Your task to perform on an android device: Open the Play Movies app and select the watchlist tab. Image 0: 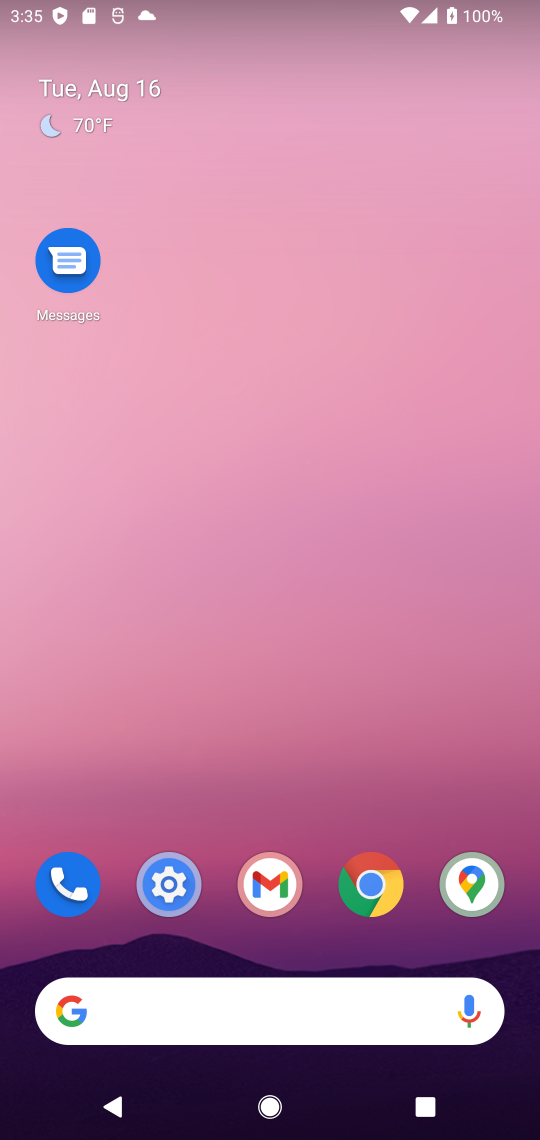
Step 0: drag from (51, 1079) to (309, 382)
Your task to perform on an android device: Open the Play Movies app and select the watchlist tab. Image 1: 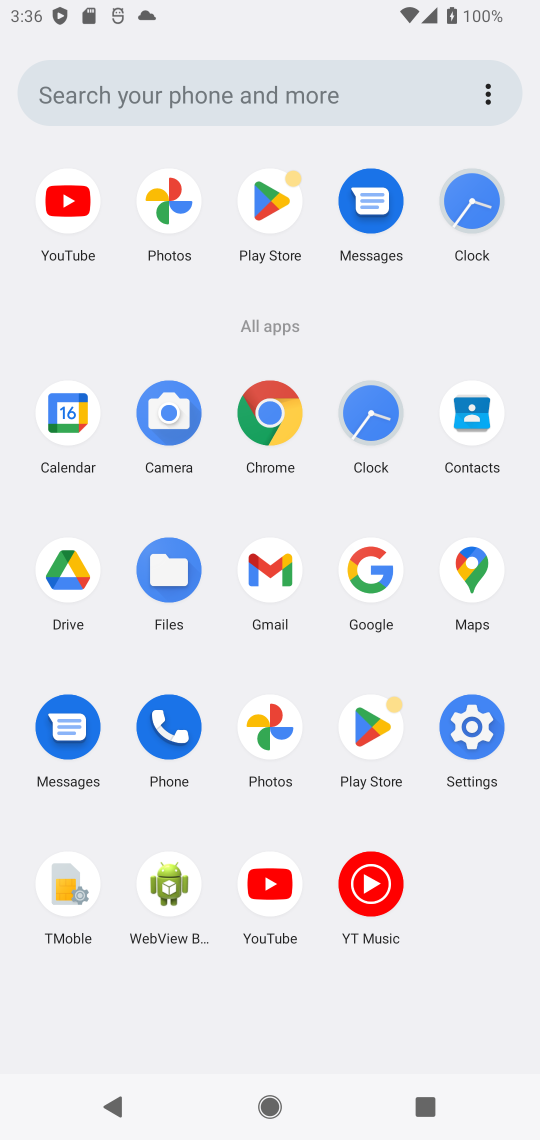
Step 1: task complete